Your task to perform on an android device: open chrome privacy settings Image 0: 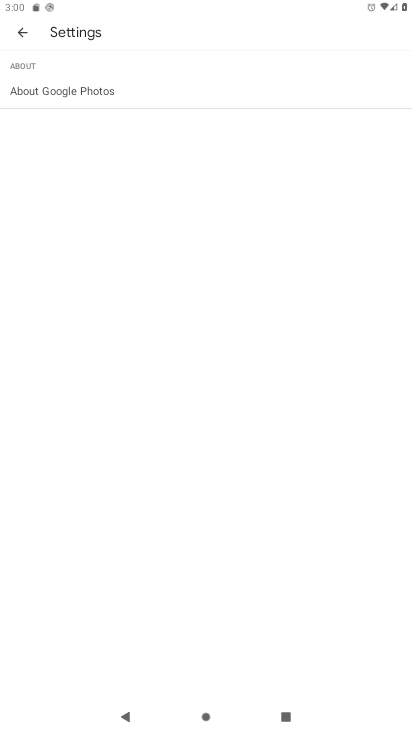
Step 0: drag from (268, 577) to (259, 158)
Your task to perform on an android device: open chrome privacy settings Image 1: 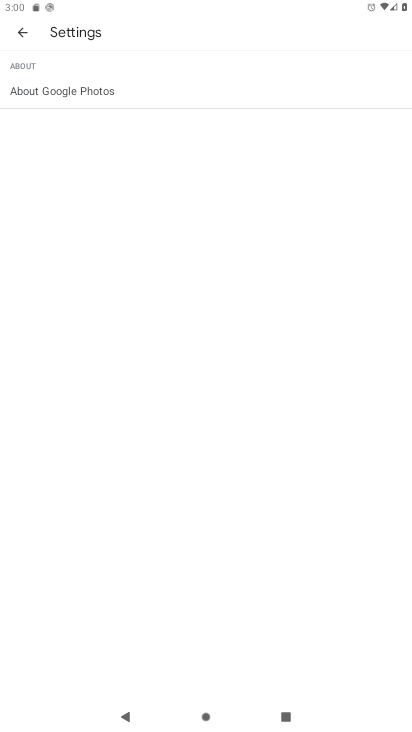
Step 1: press home button
Your task to perform on an android device: open chrome privacy settings Image 2: 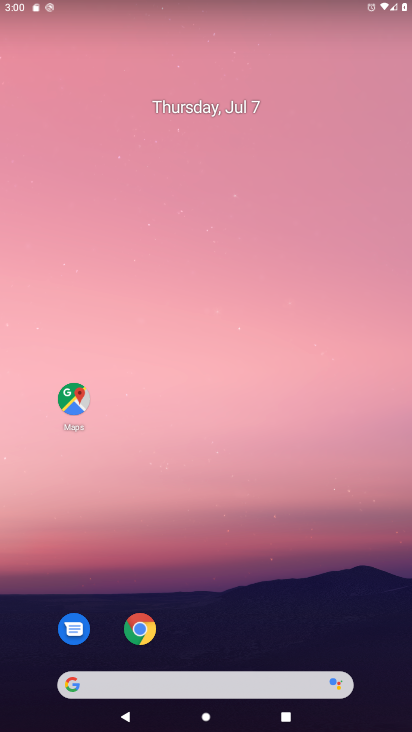
Step 2: click (135, 631)
Your task to perform on an android device: open chrome privacy settings Image 3: 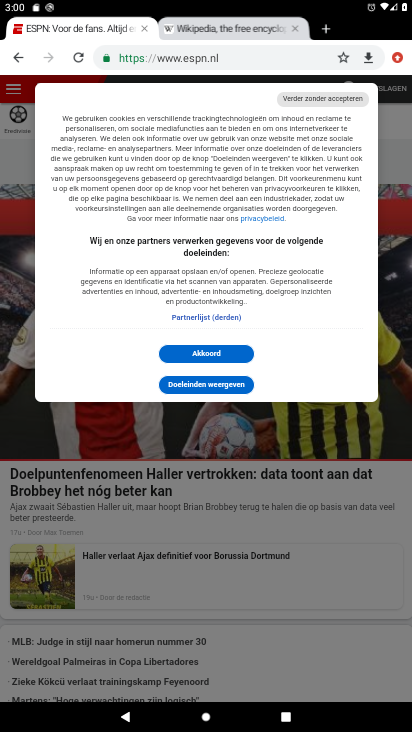
Step 3: click (396, 64)
Your task to perform on an android device: open chrome privacy settings Image 4: 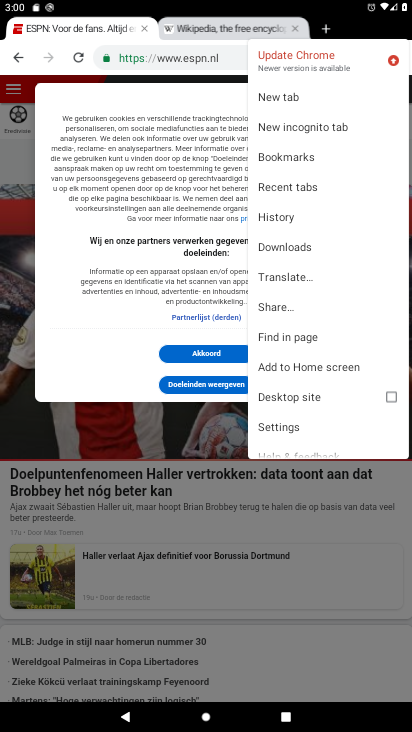
Step 4: click (307, 425)
Your task to perform on an android device: open chrome privacy settings Image 5: 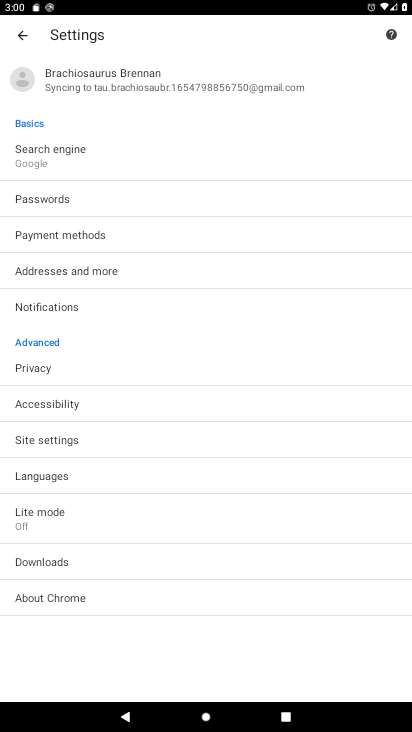
Step 5: click (87, 364)
Your task to perform on an android device: open chrome privacy settings Image 6: 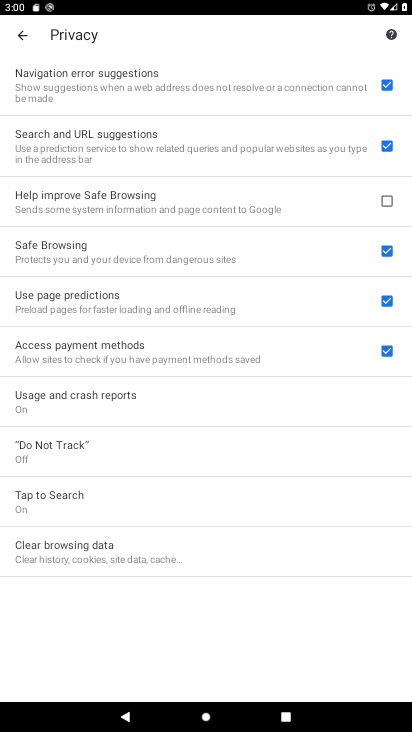
Step 6: task complete